Your task to perform on an android device: Open wifi settings Image 0: 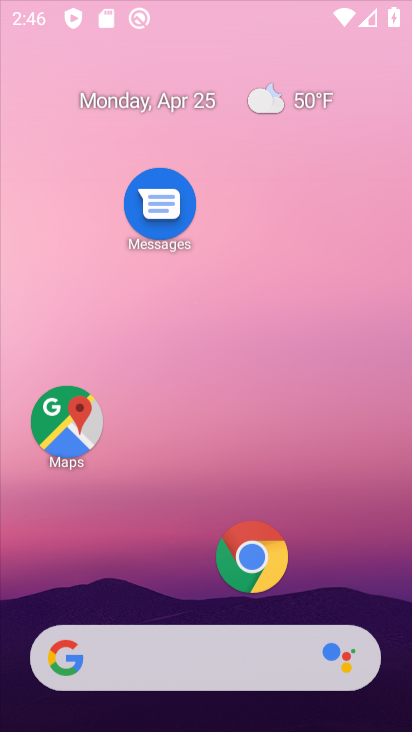
Step 0: click (411, 2)
Your task to perform on an android device: Open wifi settings Image 1: 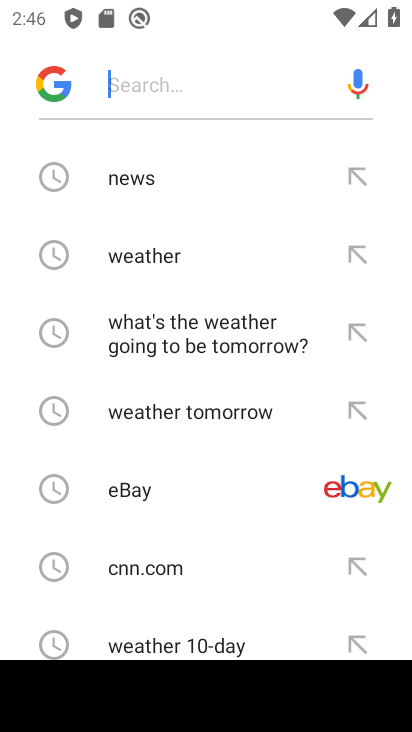
Step 1: press home button
Your task to perform on an android device: Open wifi settings Image 2: 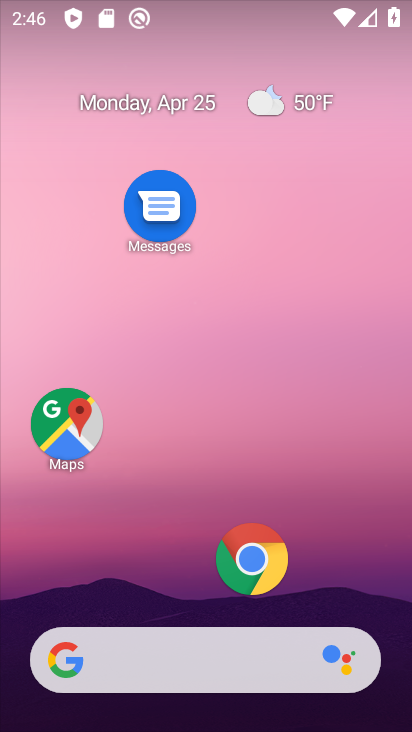
Step 2: drag from (150, 581) to (406, 119)
Your task to perform on an android device: Open wifi settings Image 3: 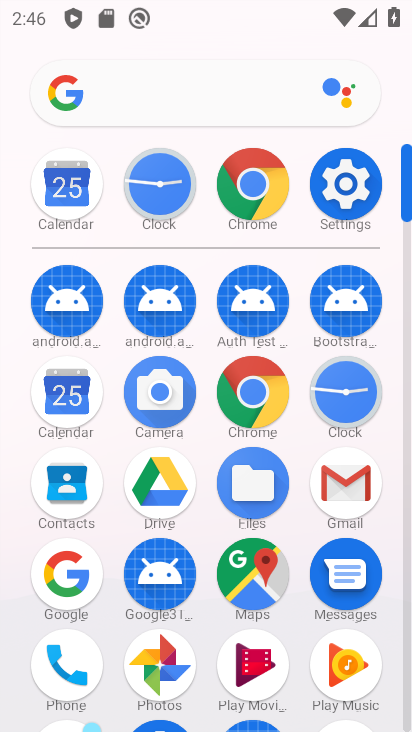
Step 3: click (362, 224)
Your task to perform on an android device: Open wifi settings Image 4: 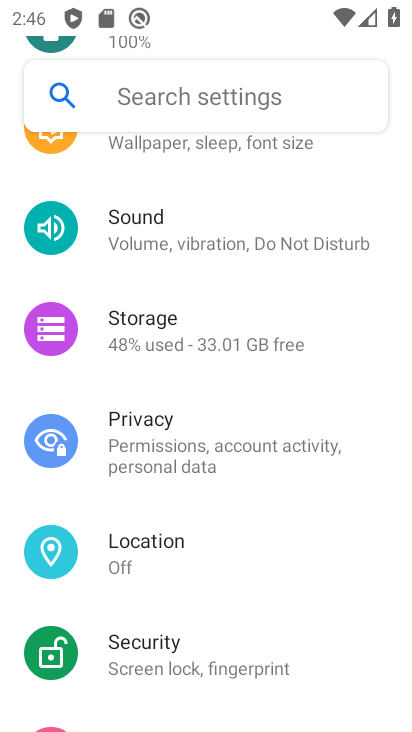
Step 4: drag from (285, 232) to (208, 572)
Your task to perform on an android device: Open wifi settings Image 5: 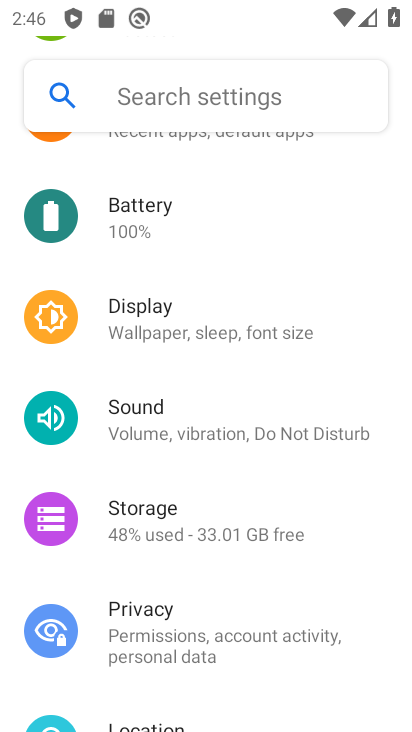
Step 5: drag from (286, 322) to (289, 628)
Your task to perform on an android device: Open wifi settings Image 6: 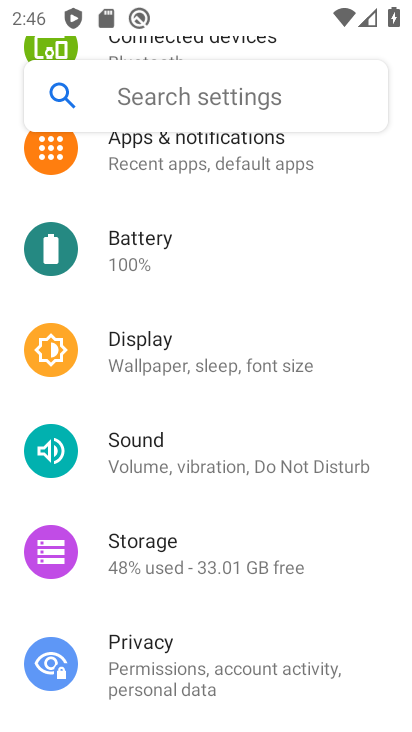
Step 6: drag from (282, 349) to (276, 711)
Your task to perform on an android device: Open wifi settings Image 7: 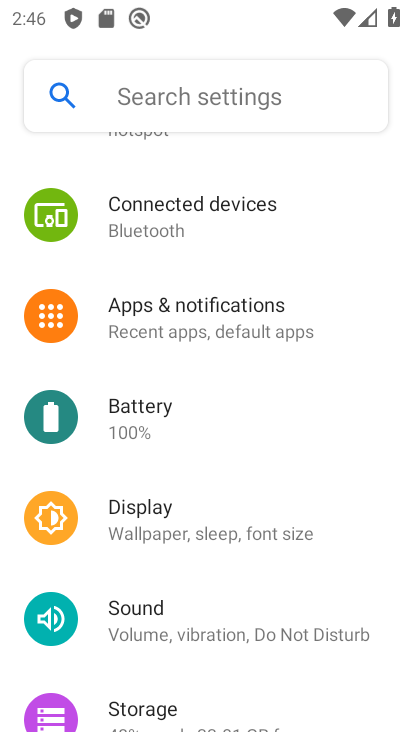
Step 7: drag from (275, 269) to (276, 651)
Your task to perform on an android device: Open wifi settings Image 8: 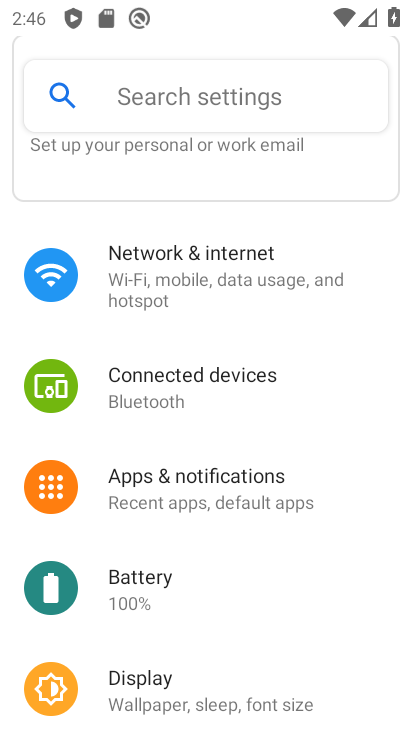
Step 8: click (160, 300)
Your task to perform on an android device: Open wifi settings Image 9: 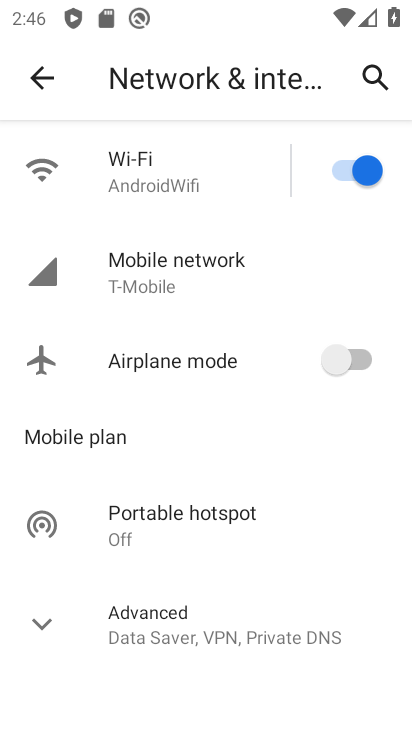
Step 9: click (182, 188)
Your task to perform on an android device: Open wifi settings Image 10: 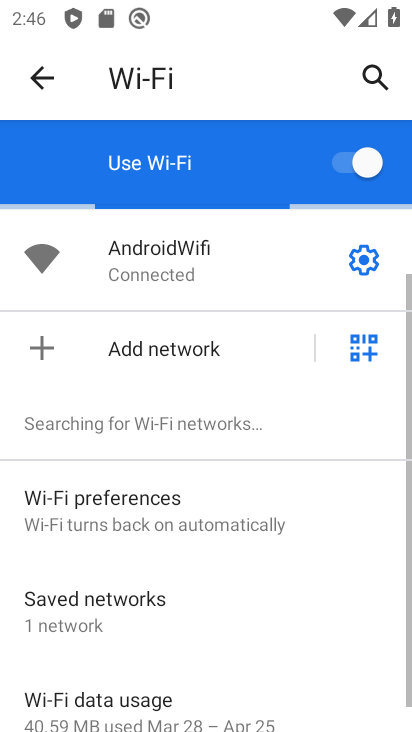
Step 10: task complete